Your task to perform on an android device: View the shopping cart on walmart. Add alienware area 51 to the cart on walmart, then select checkout. Image 0: 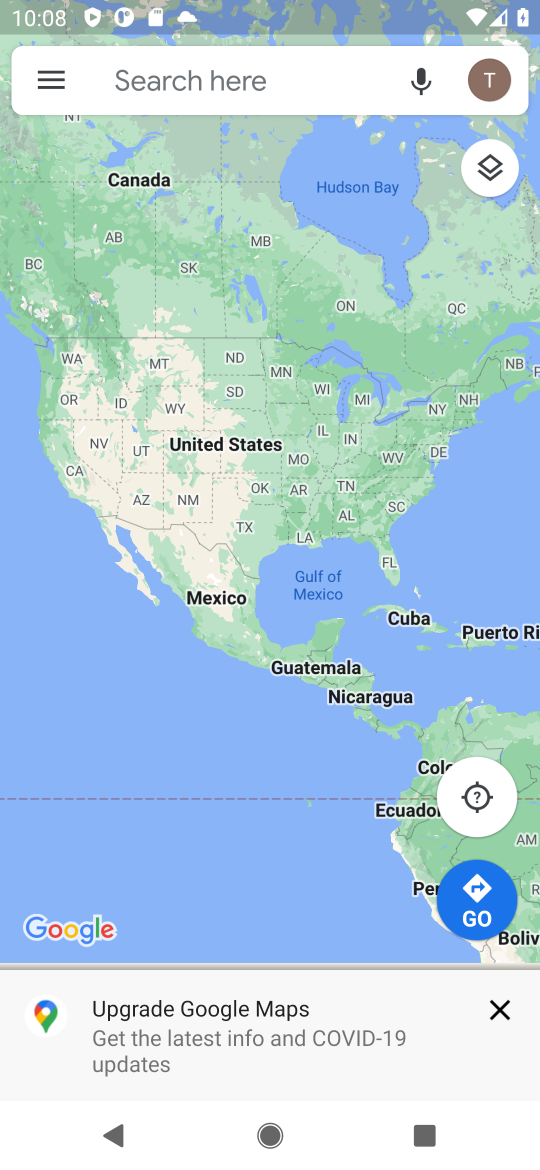
Step 0: press home button
Your task to perform on an android device: View the shopping cart on walmart. Add alienware area 51 to the cart on walmart, then select checkout. Image 1: 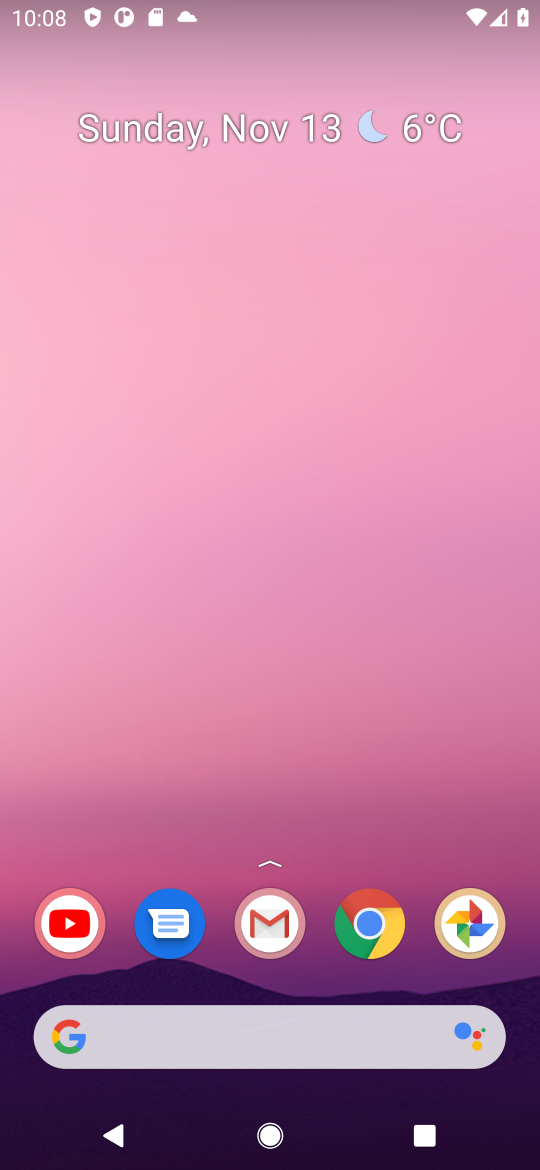
Step 1: click (396, 920)
Your task to perform on an android device: View the shopping cart on walmart. Add alienware area 51 to the cart on walmart, then select checkout. Image 2: 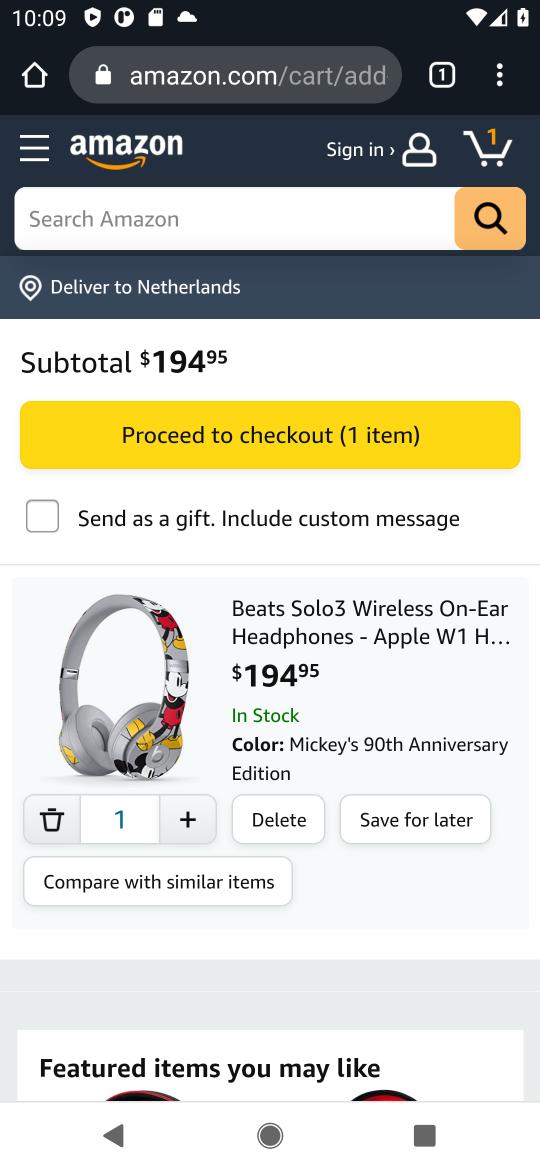
Step 2: click (335, 78)
Your task to perform on an android device: View the shopping cart on walmart. Add alienware area 51 to the cart on walmart, then select checkout. Image 3: 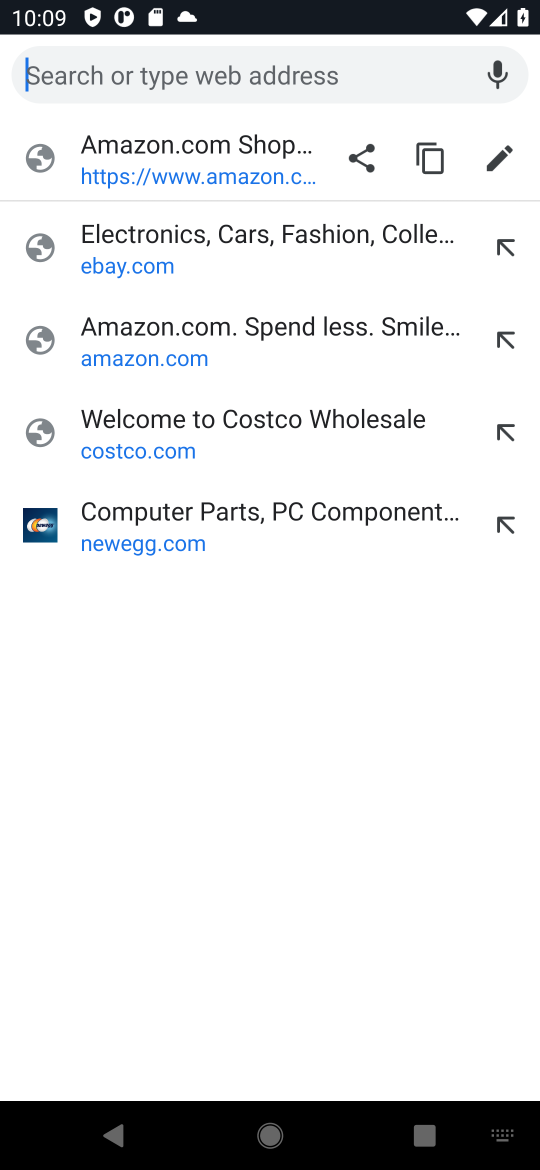
Step 3: type " walmart"
Your task to perform on an android device: View the shopping cart on walmart. Add alienware area 51 to the cart on walmart, then select checkout. Image 4: 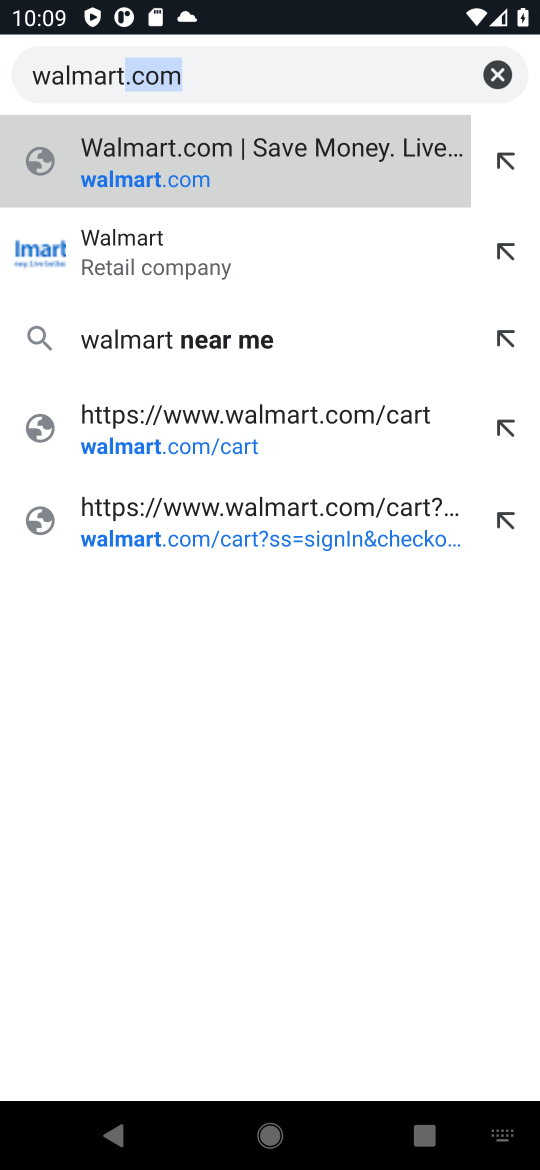
Step 4: press enter
Your task to perform on an android device: View the shopping cart on walmart. Add alienware area 51 to the cart on walmart, then select checkout. Image 5: 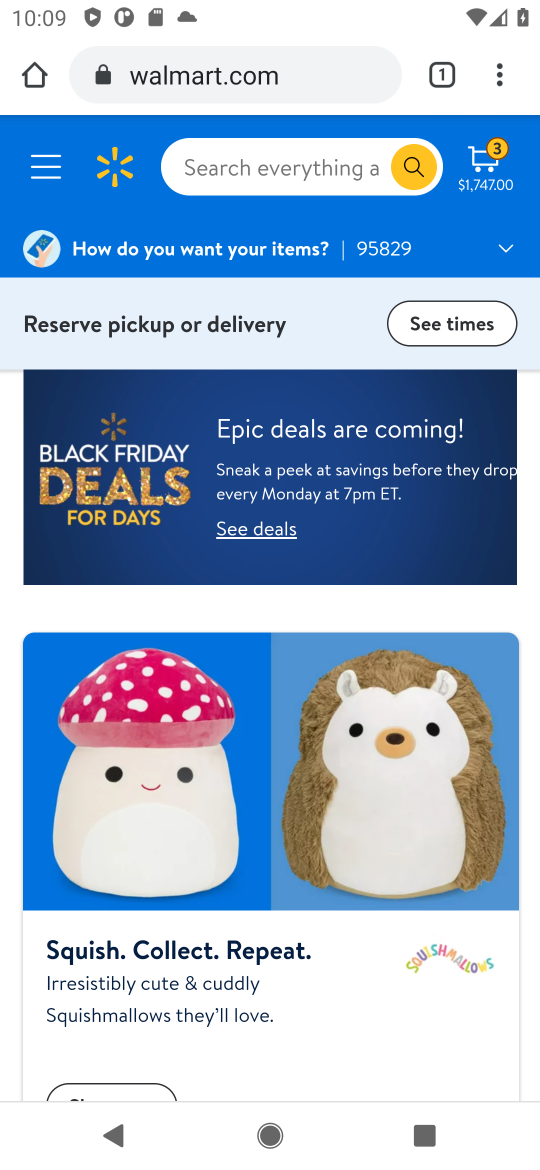
Step 5: click (224, 151)
Your task to perform on an android device: View the shopping cart on walmart. Add alienware area 51 to the cart on walmart, then select checkout. Image 6: 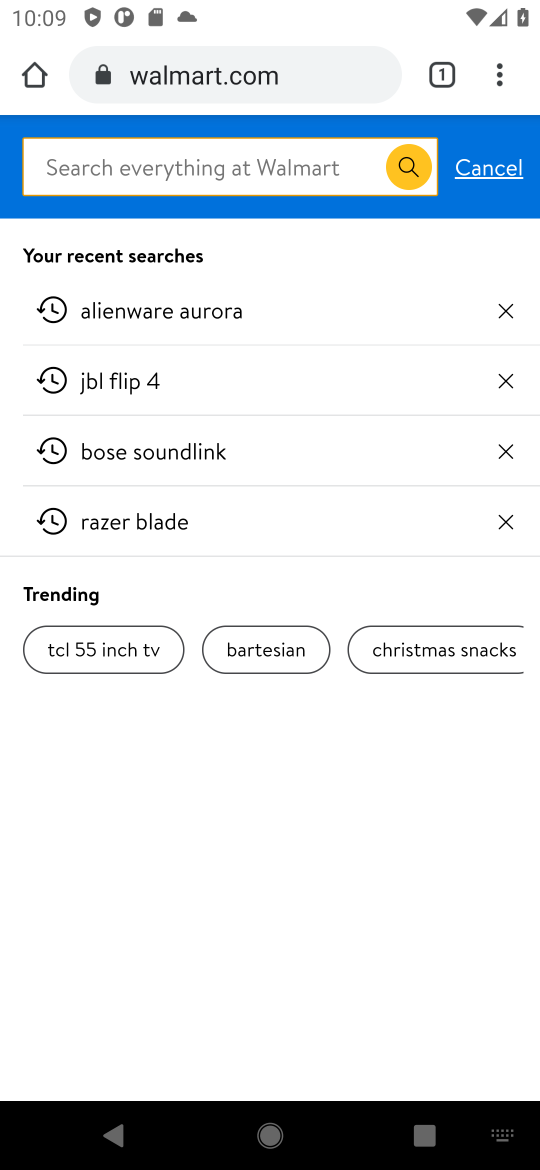
Step 6: type "alienware area 51"
Your task to perform on an android device: View the shopping cart on walmart. Add alienware area 51 to the cart on walmart, then select checkout. Image 7: 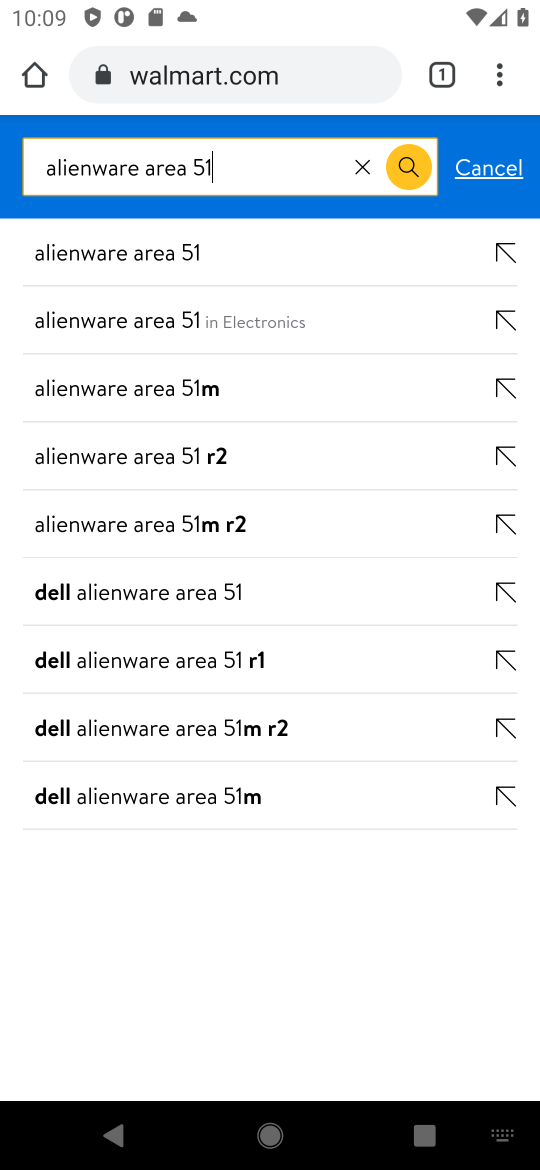
Step 7: press enter
Your task to perform on an android device: View the shopping cart on walmart. Add alienware area 51 to the cart on walmart, then select checkout. Image 8: 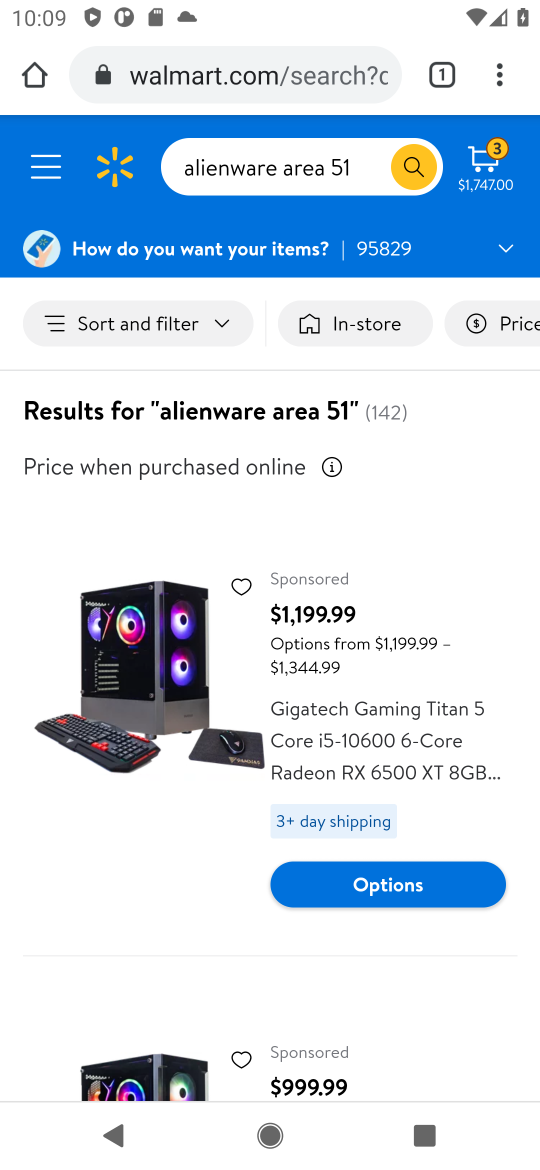
Step 8: drag from (157, 866) to (163, 309)
Your task to perform on an android device: View the shopping cart on walmart. Add alienware area 51 to the cart on walmart, then select checkout. Image 9: 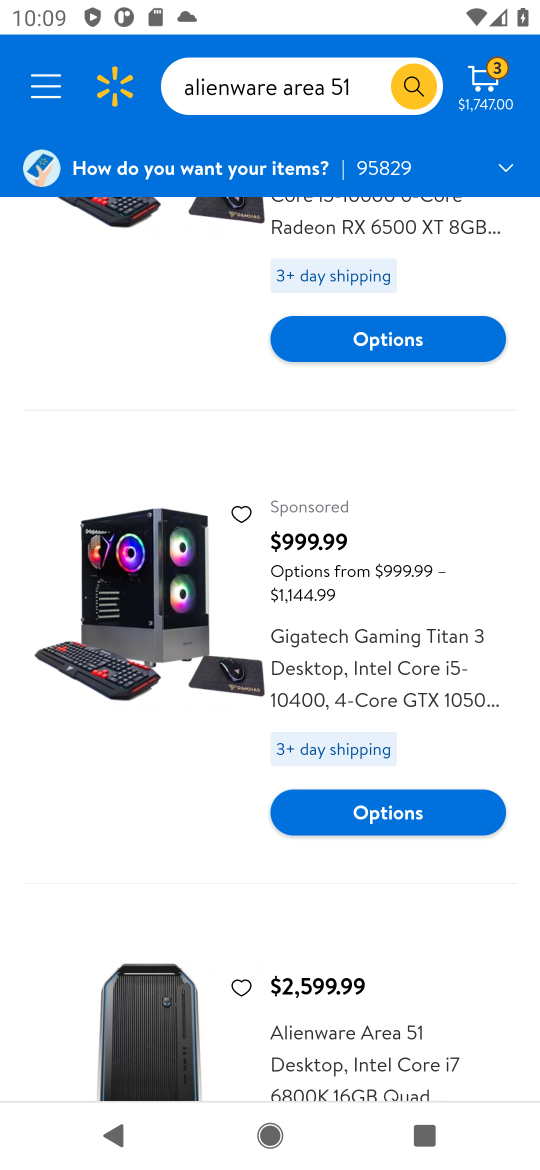
Step 9: drag from (430, 908) to (388, 569)
Your task to perform on an android device: View the shopping cart on walmart. Add alienware area 51 to the cart on walmart, then select checkout. Image 10: 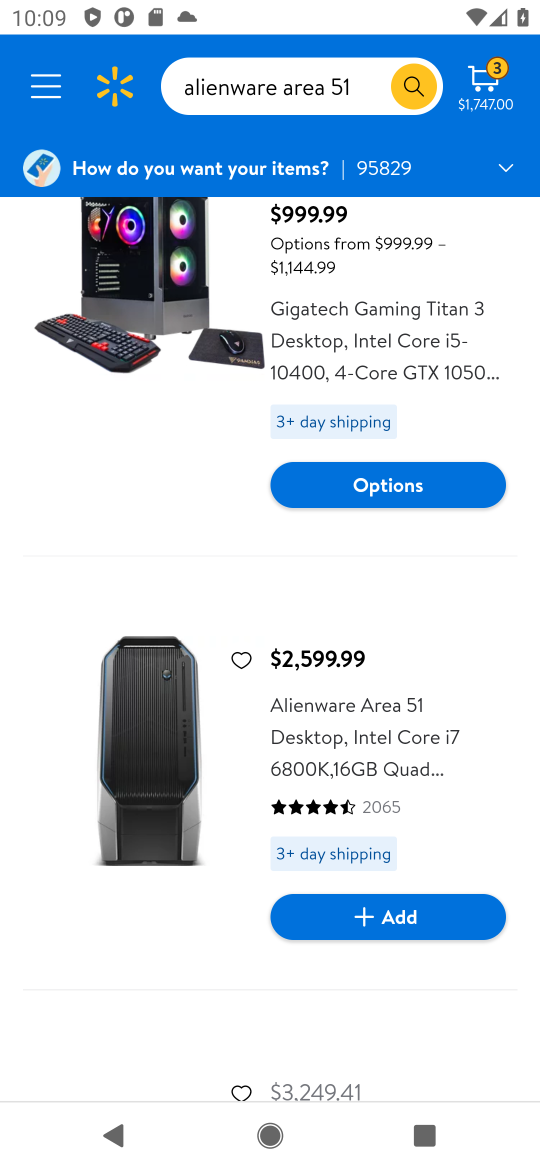
Step 10: click (163, 777)
Your task to perform on an android device: View the shopping cart on walmart. Add alienware area 51 to the cart on walmart, then select checkout. Image 11: 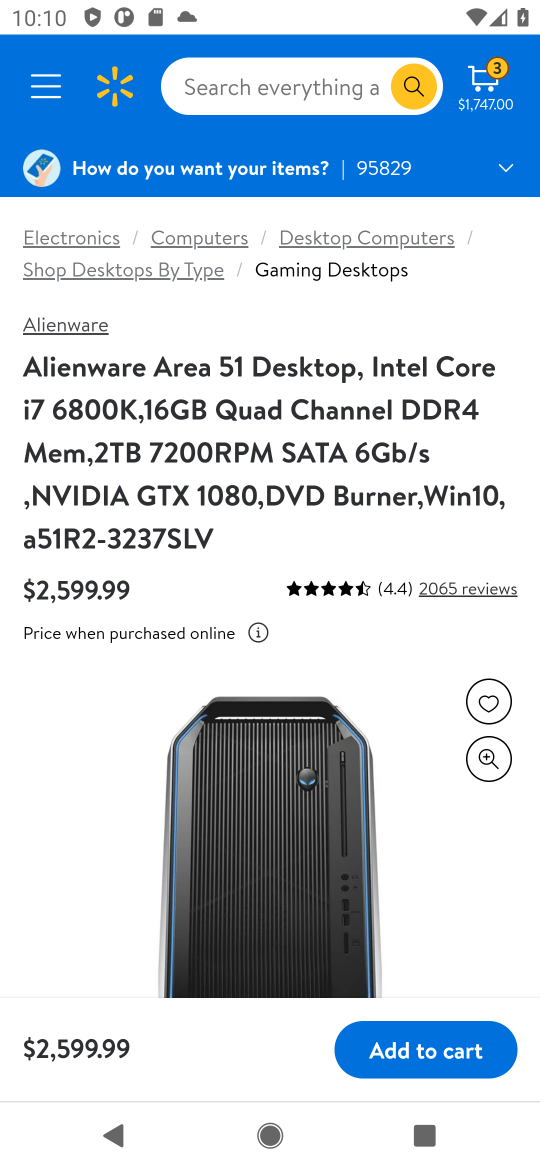
Step 11: drag from (453, 907) to (449, 349)
Your task to perform on an android device: View the shopping cart on walmart. Add alienware area 51 to the cart on walmart, then select checkout. Image 12: 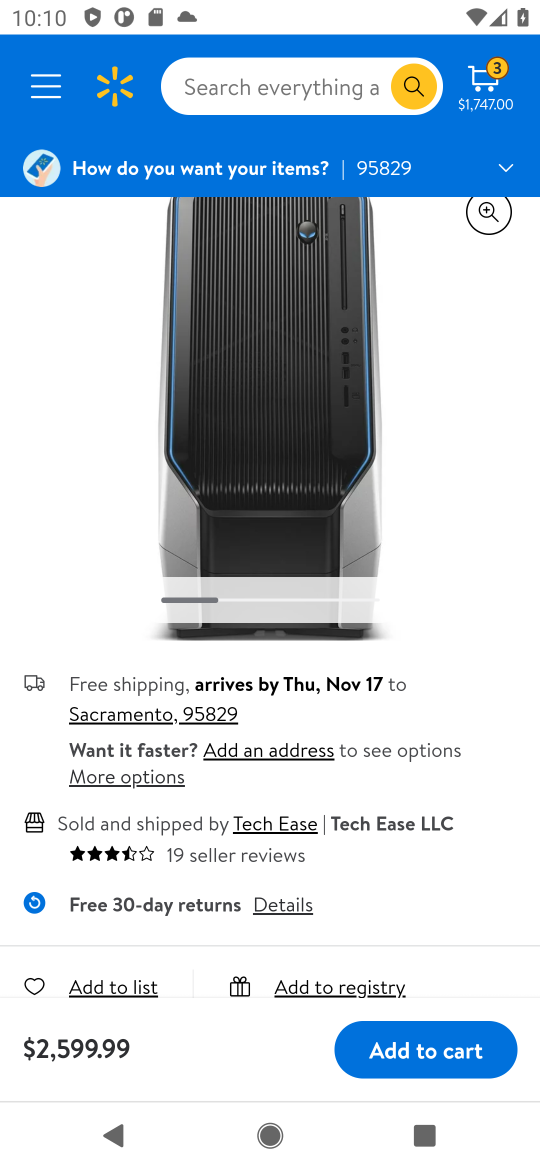
Step 12: click (464, 1040)
Your task to perform on an android device: View the shopping cart on walmart. Add alienware area 51 to the cart on walmart, then select checkout. Image 13: 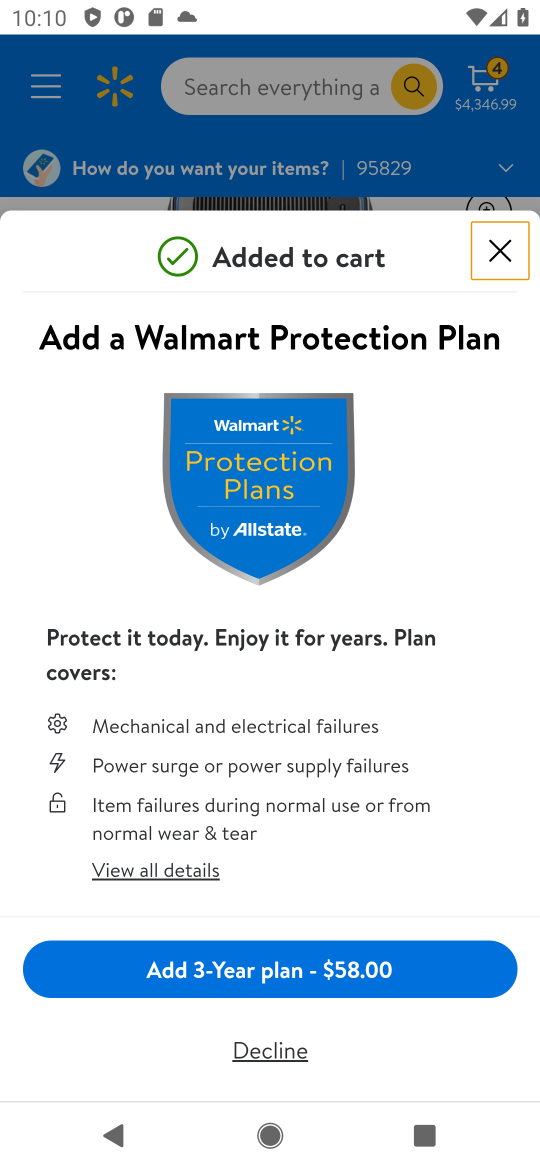
Step 13: click (493, 255)
Your task to perform on an android device: View the shopping cart on walmart. Add alienware area 51 to the cart on walmart, then select checkout. Image 14: 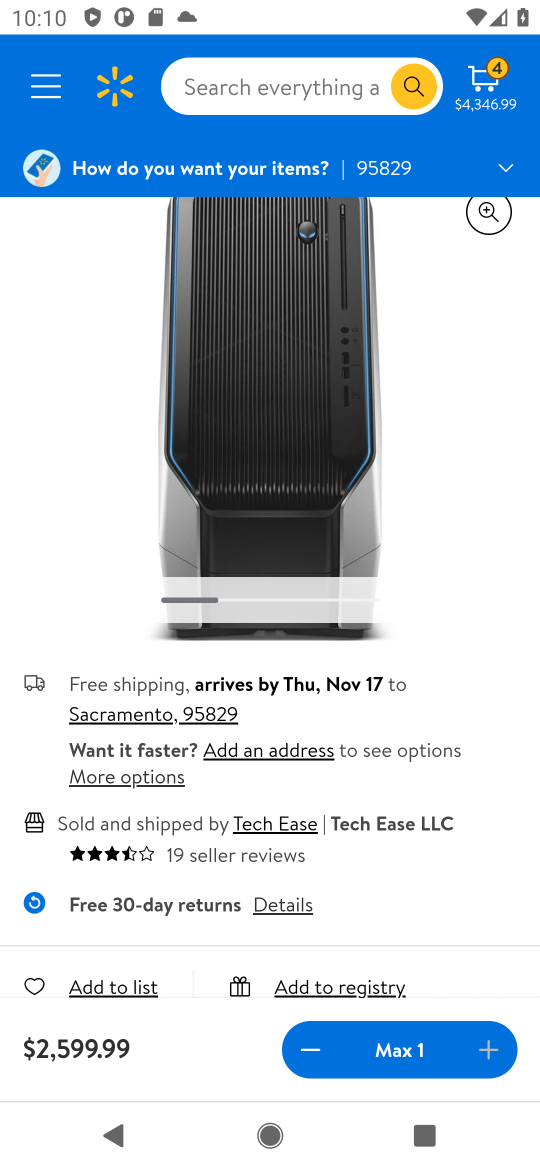
Step 14: click (483, 83)
Your task to perform on an android device: View the shopping cart on walmart. Add alienware area 51 to the cart on walmart, then select checkout. Image 15: 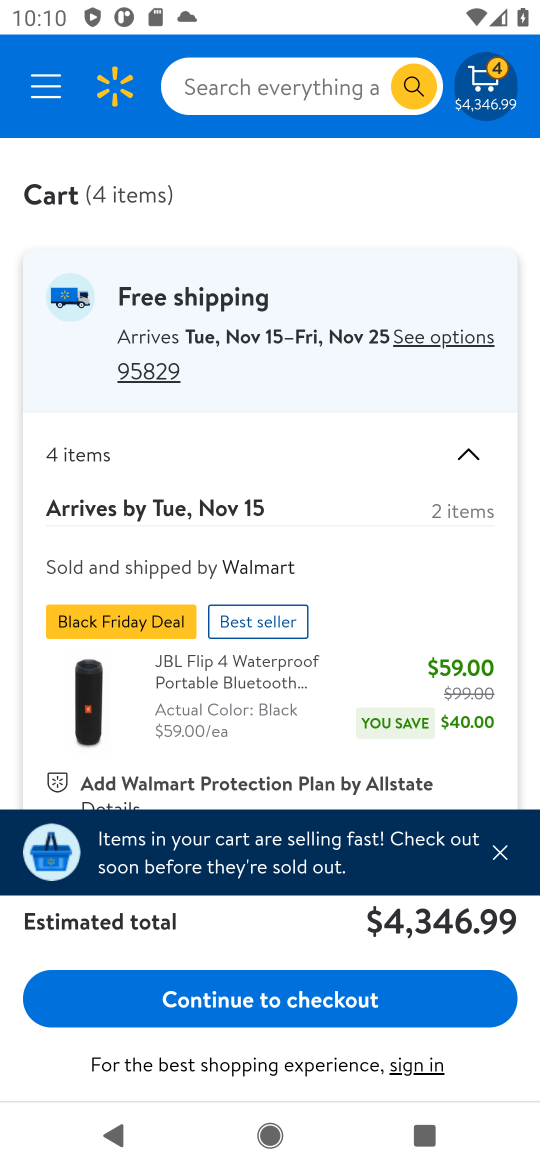
Step 15: click (483, 83)
Your task to perform on an android device: View the shopping cart on walmart. Add alienware area 51 to the cart on walmart, then select checkout. Image 16: 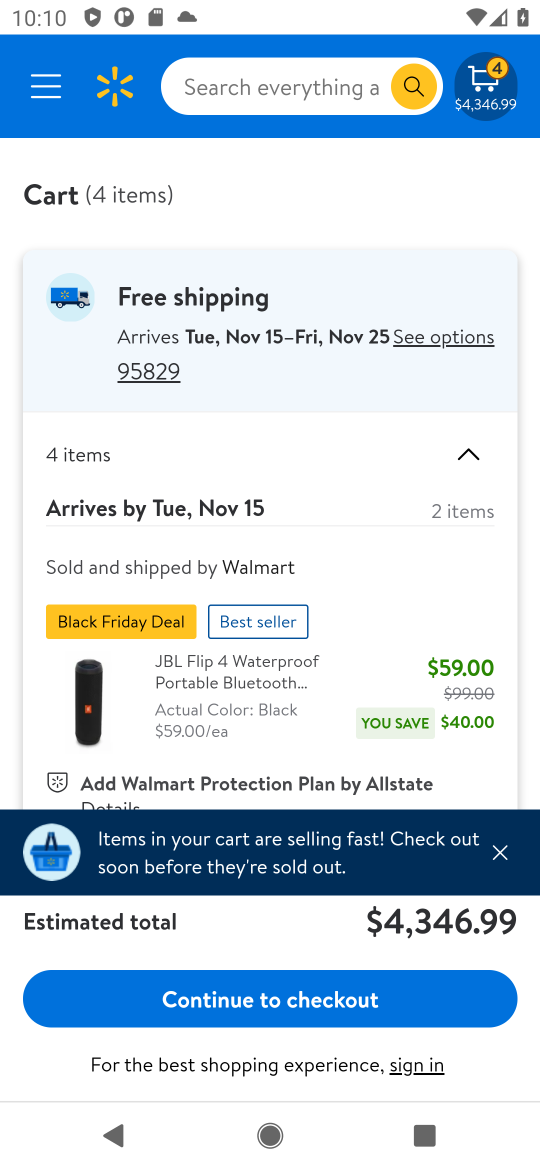
Step 16: click (483, 83)
Your task to perform on an android device: View the shopping cart on walmart. Add alienware area 51 to the cart on walmart, then select checkout. Image 17: 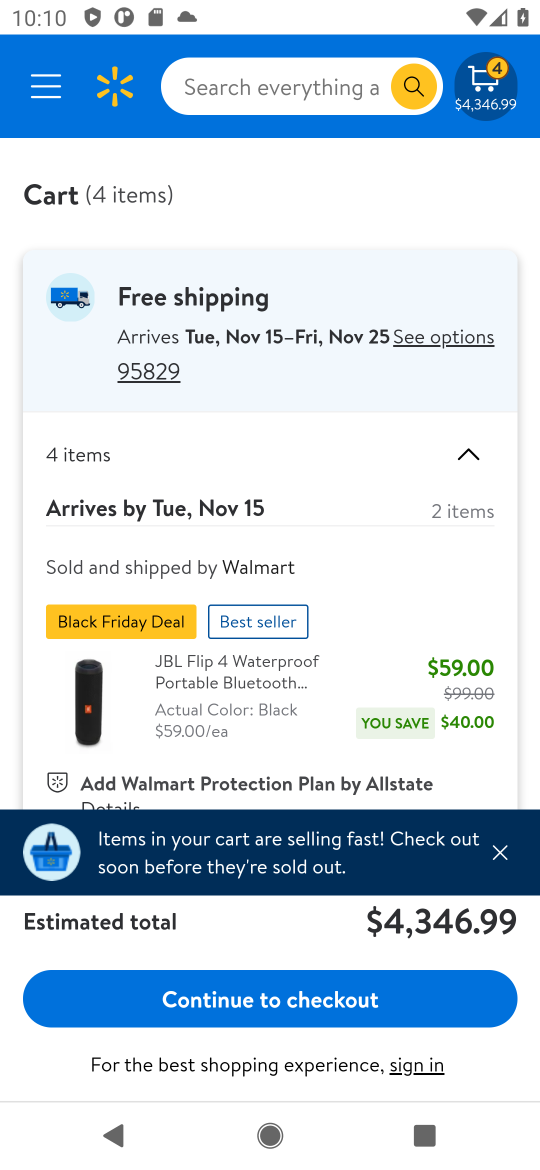
Step 17: drag from (442, 478) to (433, 91)
Your task to perform on an android device: View the shopping cart on walmart. Add alienware area 51 to the cart on walmart, then select checkout. Image 18: 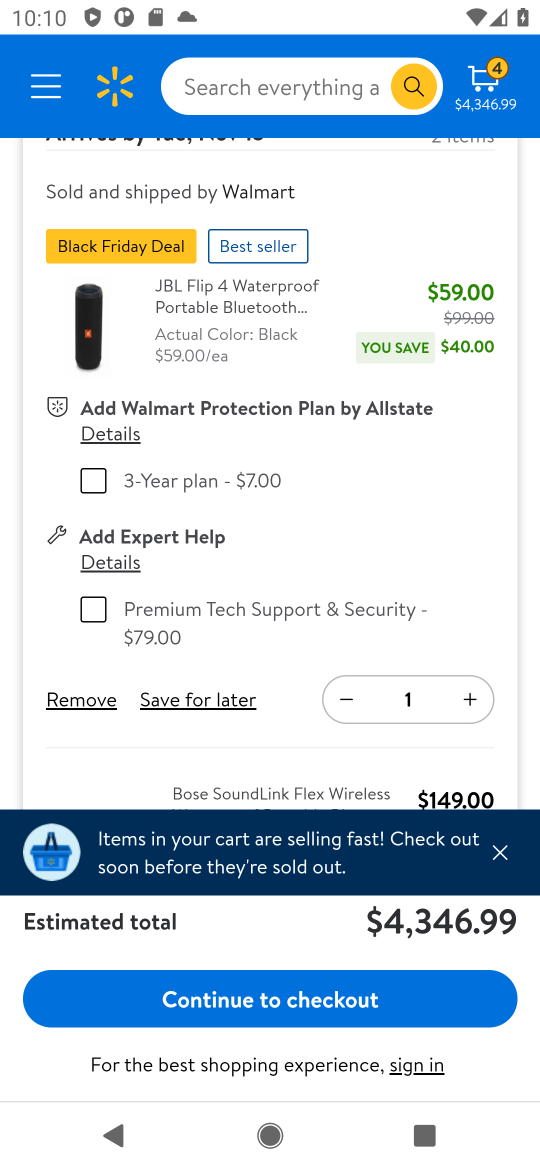
Step 18: click (267, 998)
Your task to perform on an android device: View the shopping cart on walmart. Add alienware area 51 to the cart on walmart, then select checkout. Image 19: 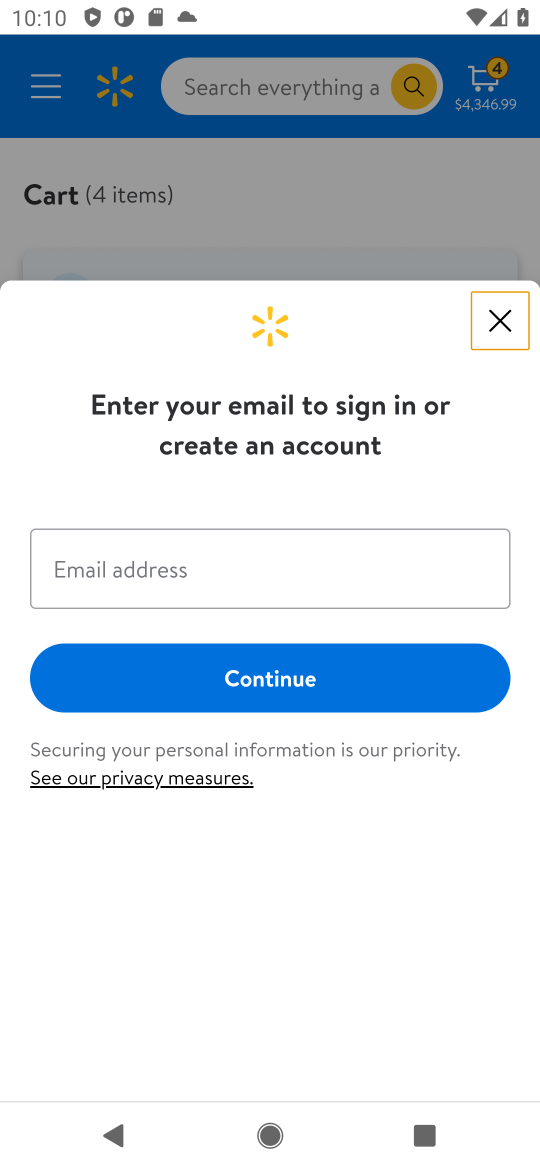
Step 19: task complete